Your task to perform on an android device: open app "eBay: The shopping marketplace" (install if not already installed) Image 0: 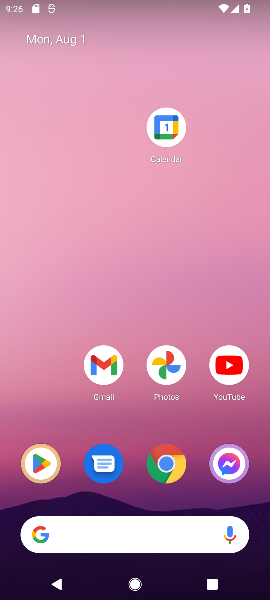
Step 0: click (27, 464)
Your task to perform on an android device: open app "eBay: The shopping marketplace" (install if not already installed) Image 1: 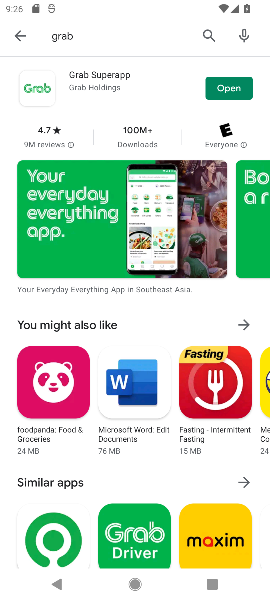
Step 1: click (211, 35)
Your task to perform on an android device: open app "eBay: The shopping marketplace" (install if not already installed) Image 2: 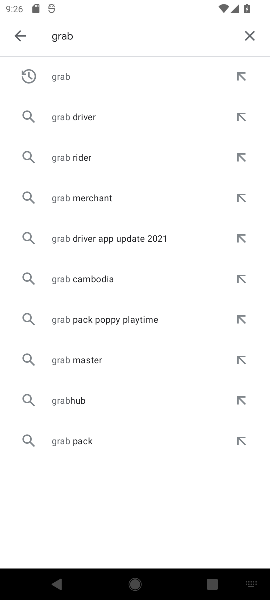
Step 2: click (244, 32)
Your task to perform on an android device: open app "eBay: The shopping marketplace" (install if not already installed) Image 3: 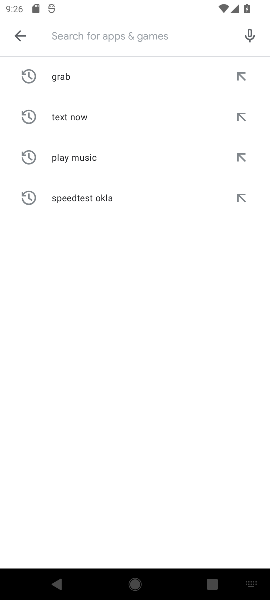
Step 3: type "ebay"
Your task to perform on an android device: open app "eBay: The shopping marketplace" (install if not already installed) Image 4: 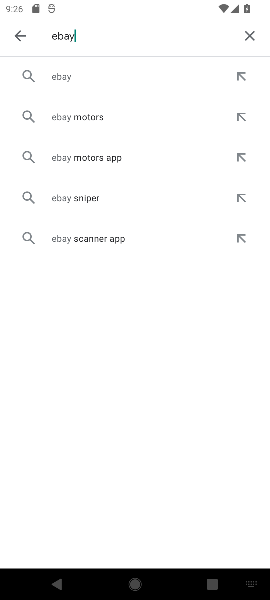
Step 4: click (56, 80)
Your task to perform on an android device: open app "eBay: The shopping marketplace" (install if not already installed) Image 5: 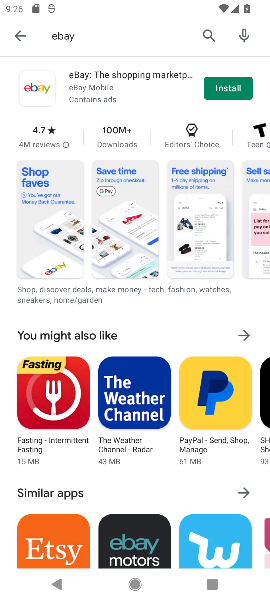
Step 5: click (218, 90)
Your task to perform on an android device: open app "eBay: The shopping marketplace" (install if not already installed) Image 6: 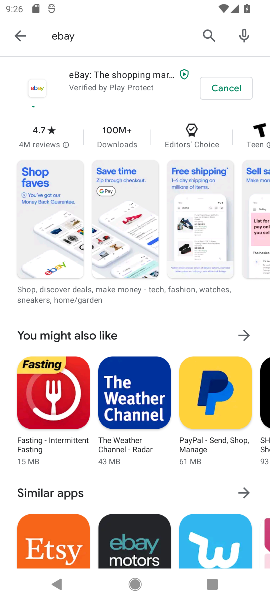
Step 6: task complete